Your task to perform on an android device: add a contact in the contacts app Image 0: 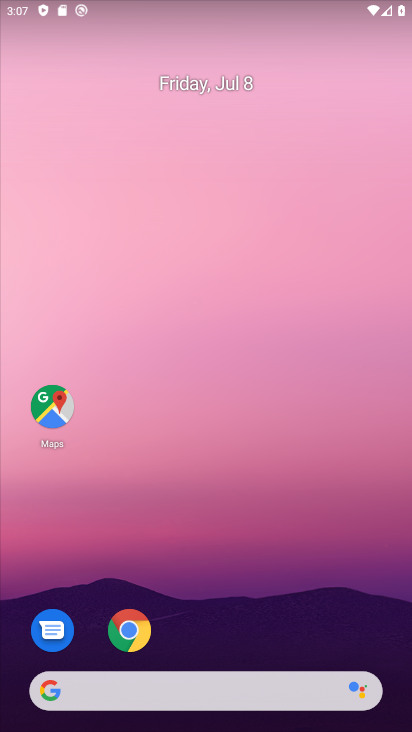
Step 0: drag from (224, 640) to (181, 88)
Your task to perform on an android device: add a contact in the contacts app Image 1: 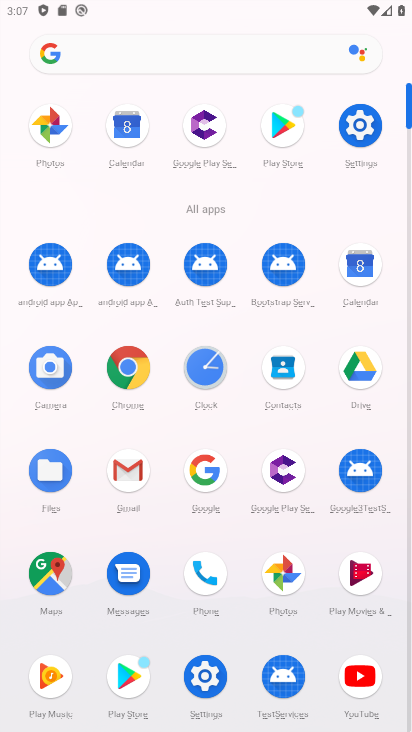
Step 1: click (280, 371)
Your task to perform on an android device: add a contact in the contacts app Image 2: 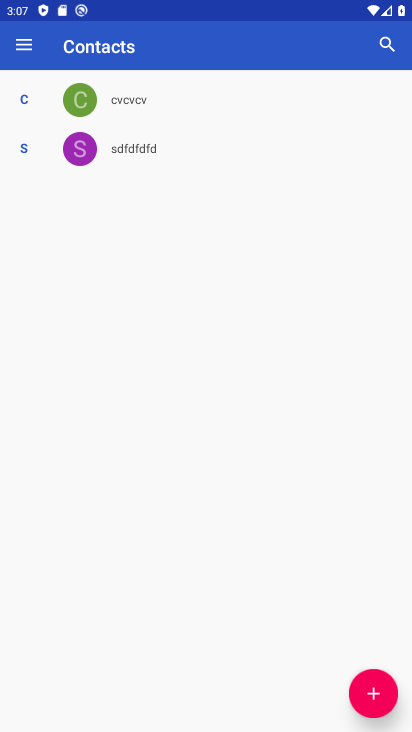
Step 2: click (378, 690)
Your task to perform on an android device: add a contact in the contacts app Image 3: 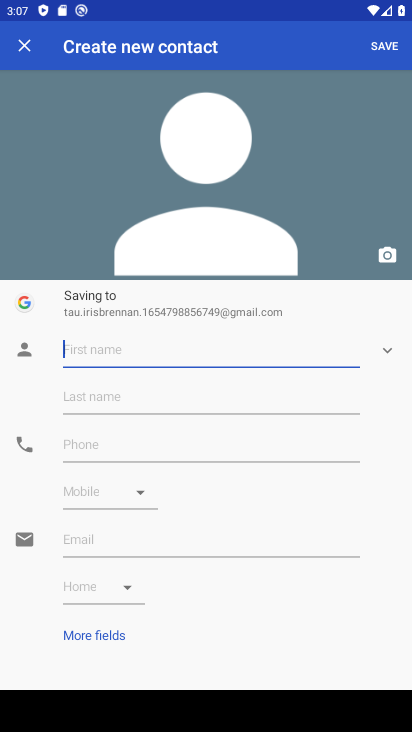
Step 3: click (199, 349)
Your task to perform on an android device: add a contact in the contacts app Image 4: 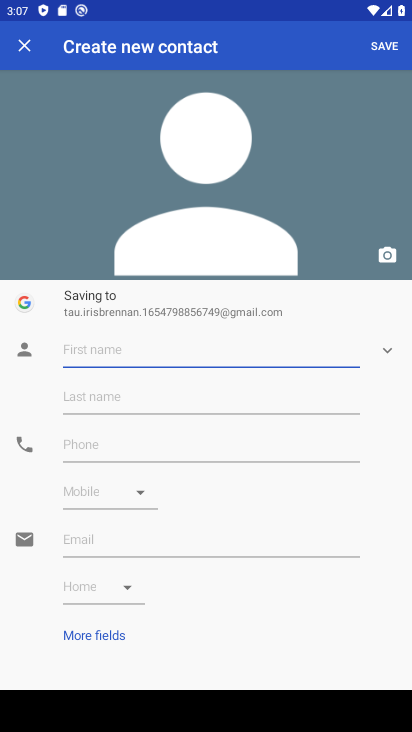
Step 4: type "James "
Your task to perform on an android device: add a contact in the contacts app Image 5: 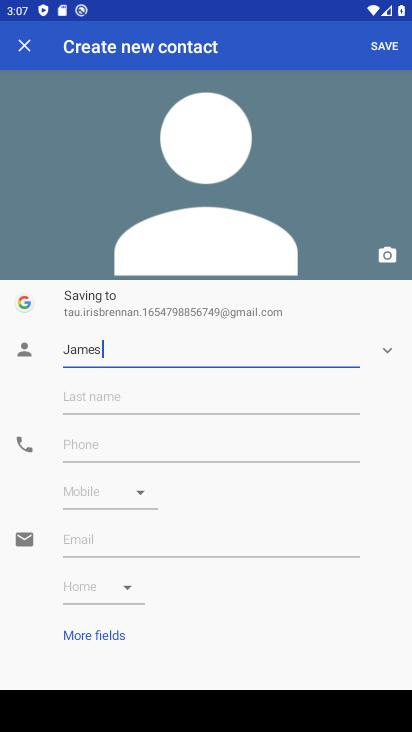
Step 5: click (255, 401)
Your task to perform on an android device: add a contact in the contacts app Image 6: 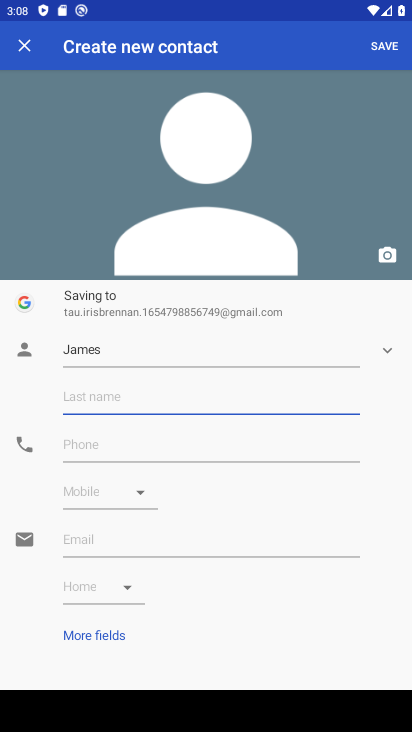
Step 6: type "Bond"
Your task to perform on an android device: add a contact in the contacts app Image 7: 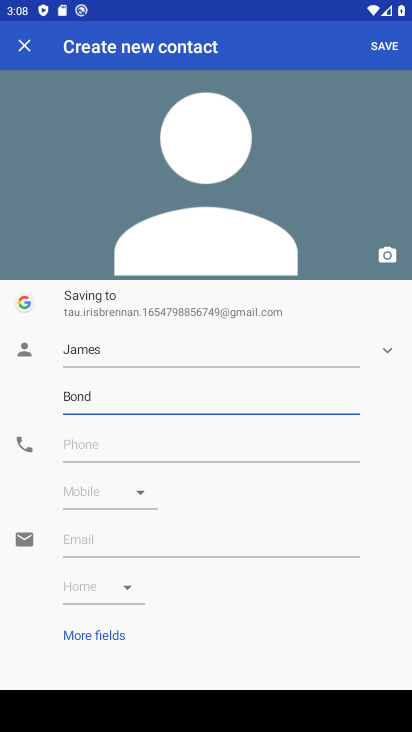
Step 7: click (118, 451)
Your task to perform on an android device: add a contact in the contacts app Image 8: 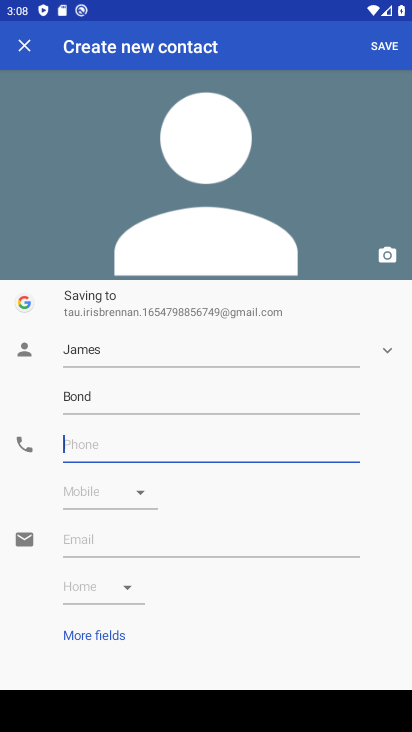
Step 8: type "0987654321"
Your task to perform on an android device: add a contact in the contacts app Image 9: 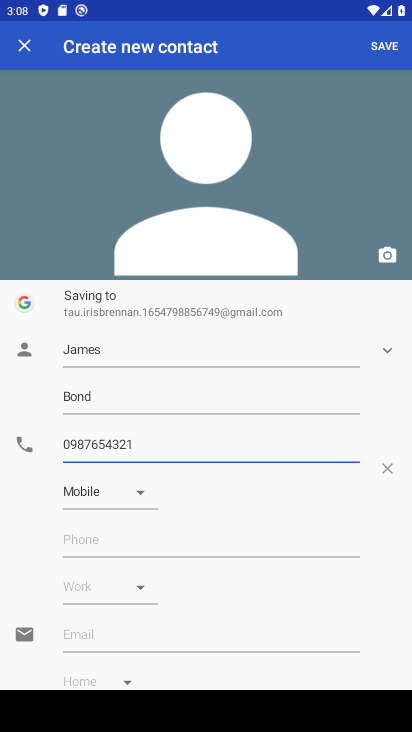
Step 9: click (384, 47)
Your task to perform on an android device: add a contact in the contacts app Image 10: 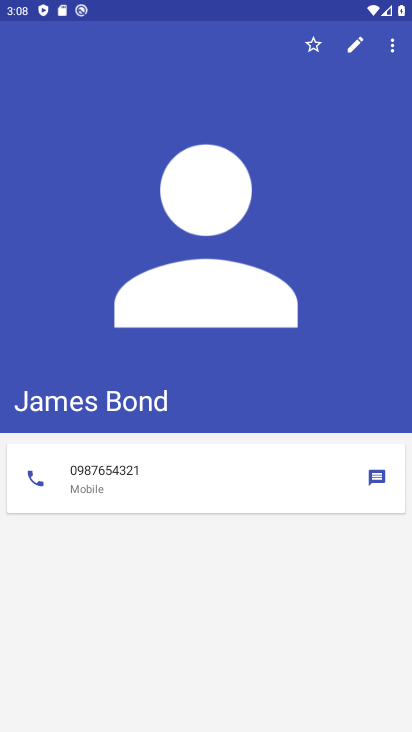
Step 10: task complete